Your task to perform on an android device: Go to calendar. Show me events next week Image 0: 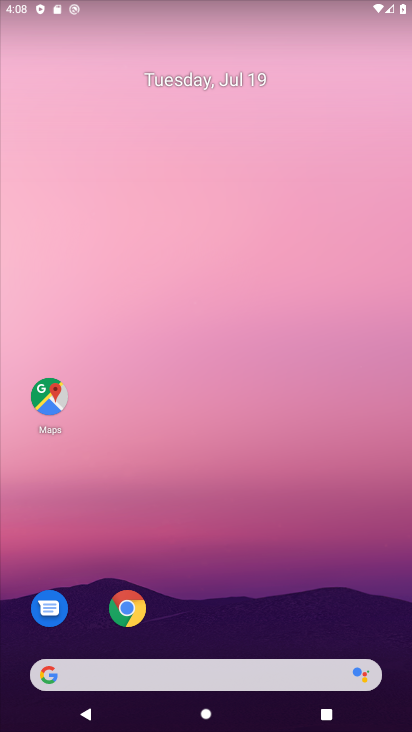
Step 0: click (219, 94)
Your task to perform on an android device: Go to calendar. Show me events next week Image 1: 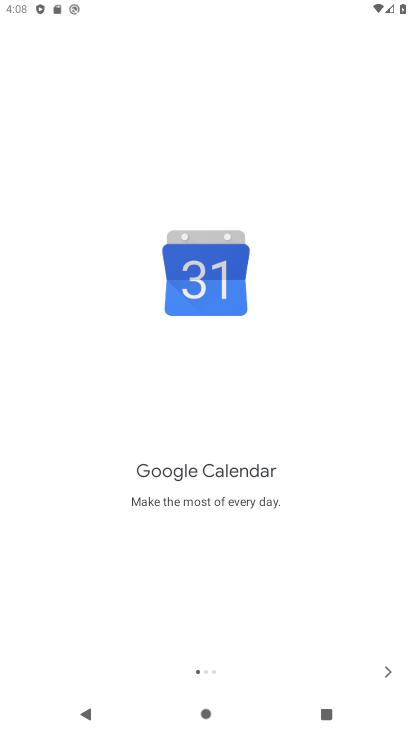
Step 1: click (386, 675)
Your task to perform on an android device: Go to calendar. Show me events next week Image 2: 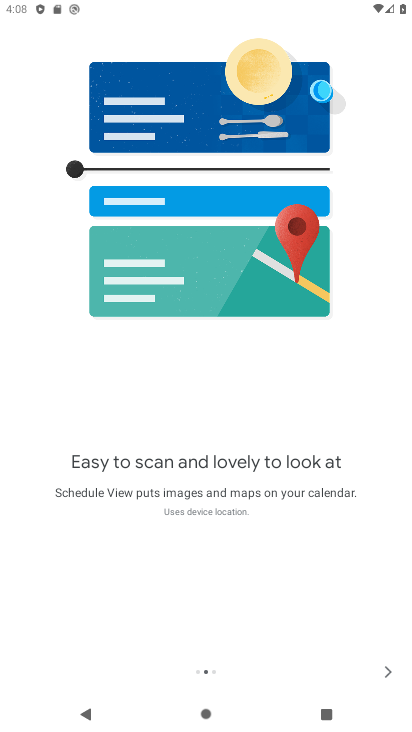
Step 2: click (386, 675)
Your task to perform on an android device: Go to calendar. Show me events next week Image 3: 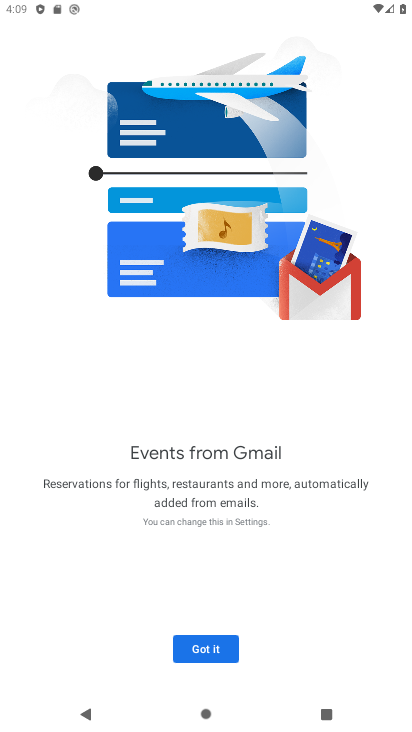
Step 3: click (220, 658)
Your task to perform on an android device: Go to calendar. Show me events next week Image 4: 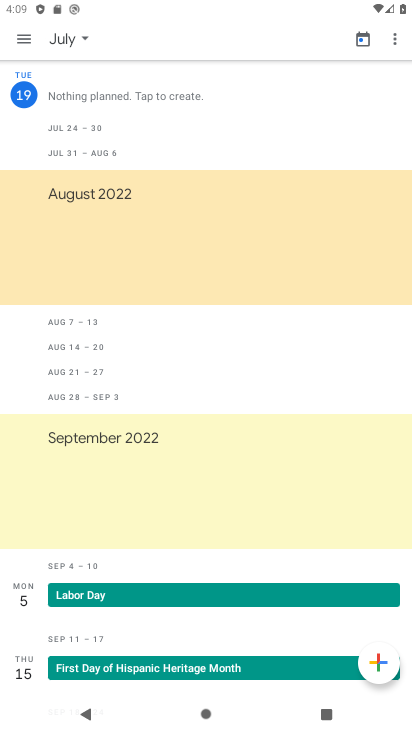
Step 4: click (66, 38)
Your task to perform on an android device: Go to calendar. Show me events next week Image 5: 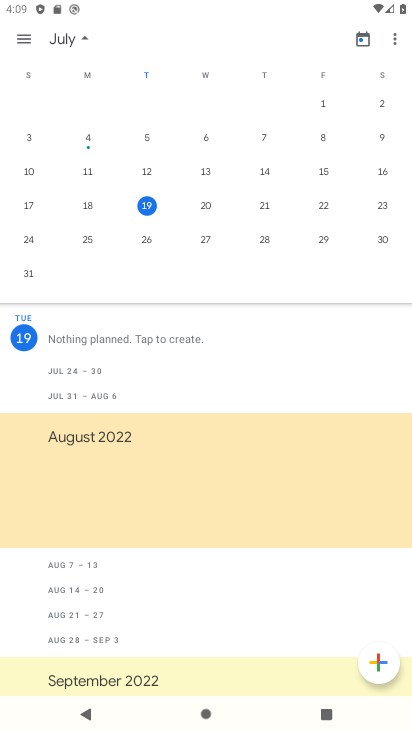
Step 5: drag from (383, 285) to (29, 267)
Your task to perform on an android device: Go to calendar. Show me events next week Image 6: 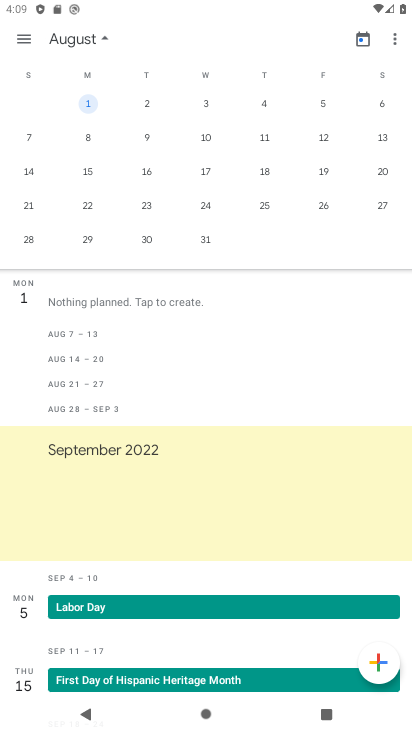
Step 6: drag from (20, 225) to (398, 275)
Your task to perform on an android device: Go to calendar. Show me events next week Image 7: 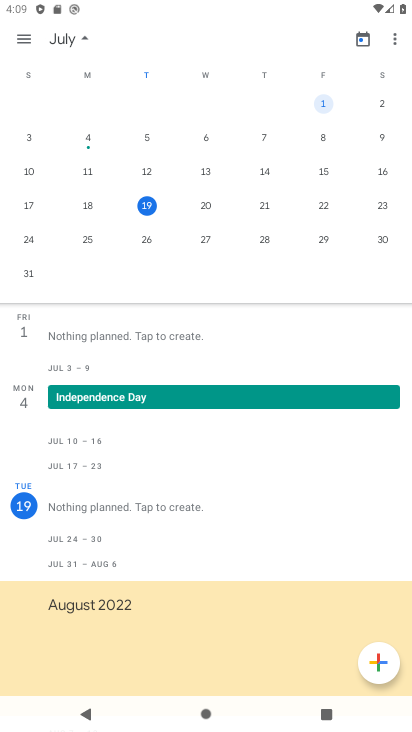
Step 7: drag from (26, 35) to (29, 0)
Your task to perform on an android device: Go to calendar. Show me events next week Image 8: 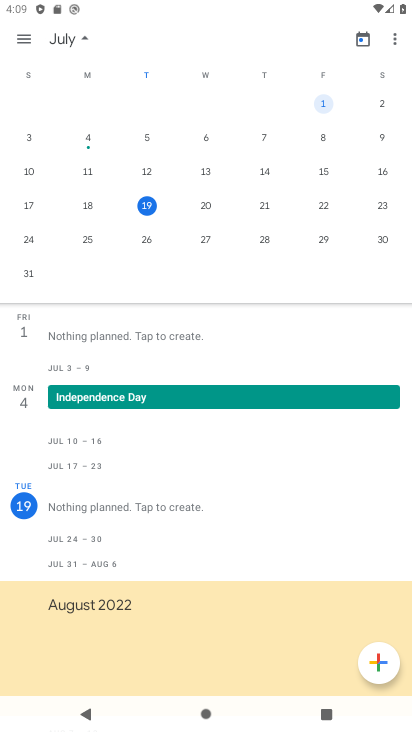
Step 8: click (11, 31)
Your task to perform on an android device: Go to calendar. Show me events next week Image 9: 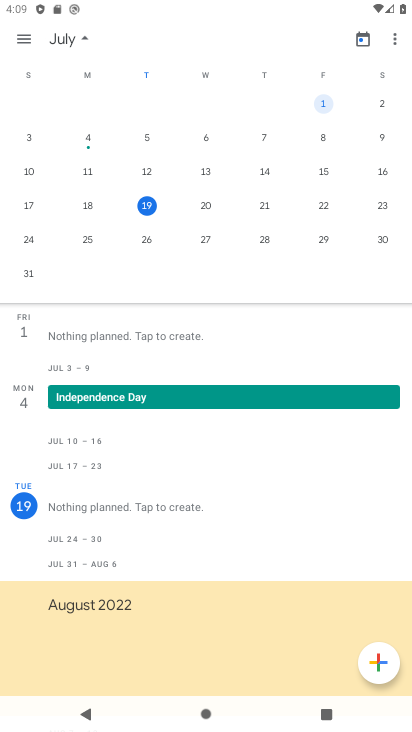
Step 9: click (19, 54)
Your task to perform on an android device: Go to calendar. Show me events next week Image 10: 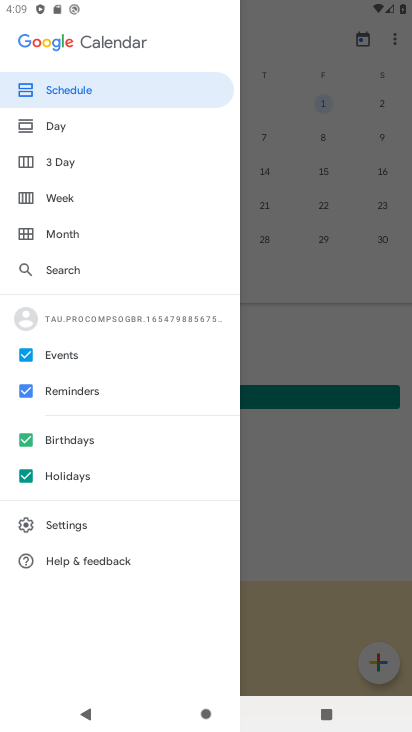
Step 10: click (30, 396)
Your task to perform on an android device: Go to calendar. Show me events next week Image 11: 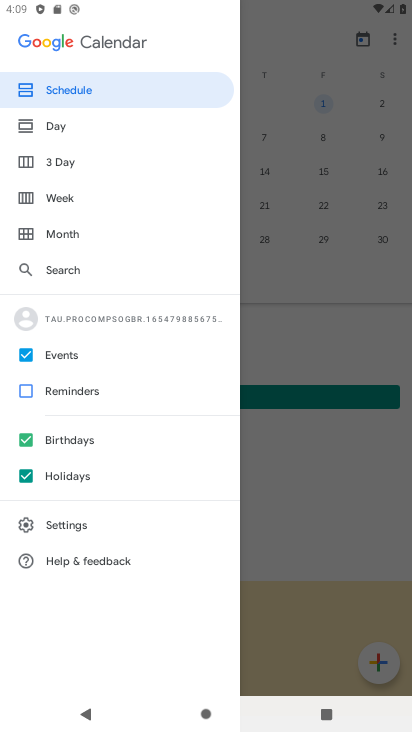
Step 11: click (21, 442)
Your task to perform on an android device: Go to calendar. Show me events next week Image 12: 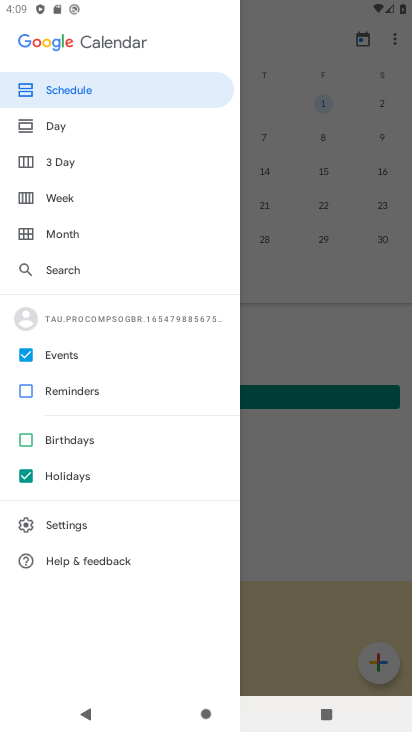
Step 12: click (21, 473)
Your task to perform on an android device: Go to calendar. Show me events next week Image 13: 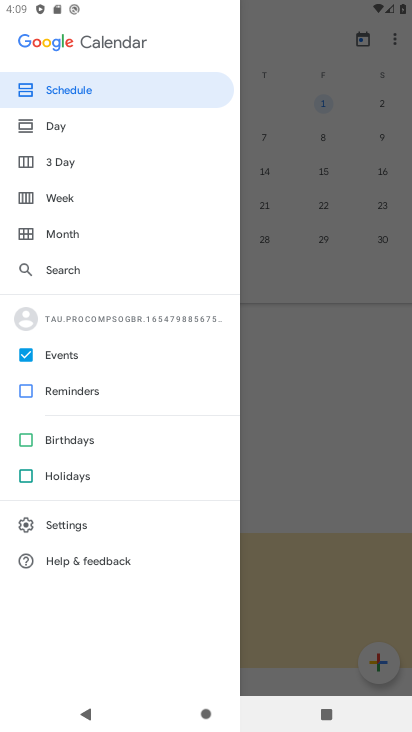
Step 13: click (90, 206)
Your task to perform on an android device: Go to calendar. Show me events next week Image 14: 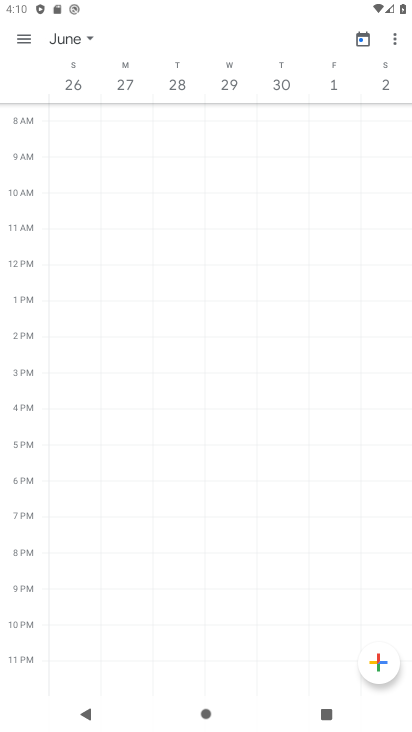
Step 14: click (75, 44)
Your task to perform on an android device: Go to calendar. Show me events next week Image 15: 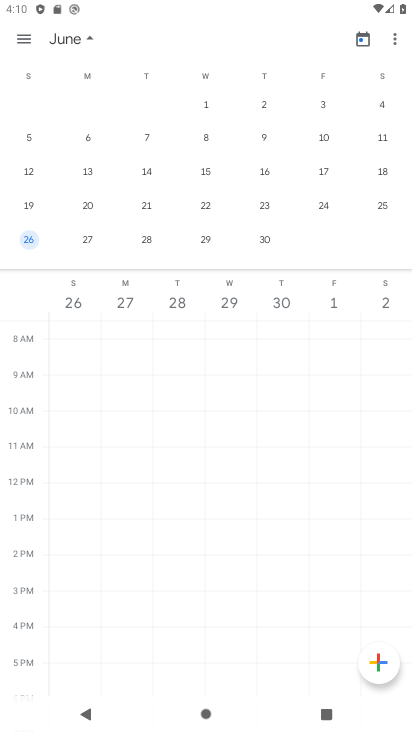
Step 15: drag from (369, 237) to (16, 206)
Your task to perform on an android device: Go to calendar. Show me events next week Image 16: 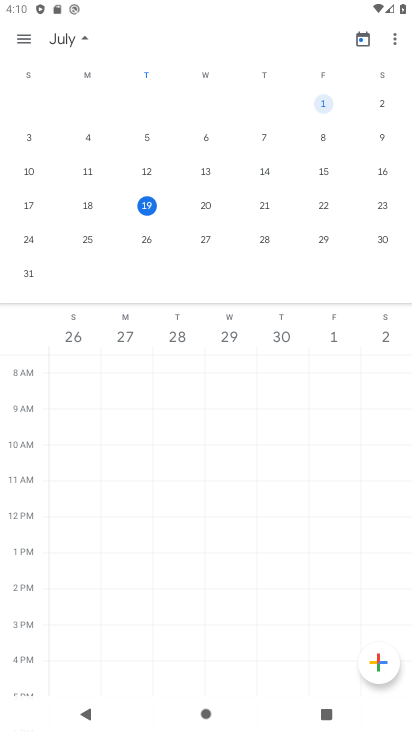
Step 16: click (132, 237)
Your task to perform on an android device: Go to calendar. Show me events next week Image 17: 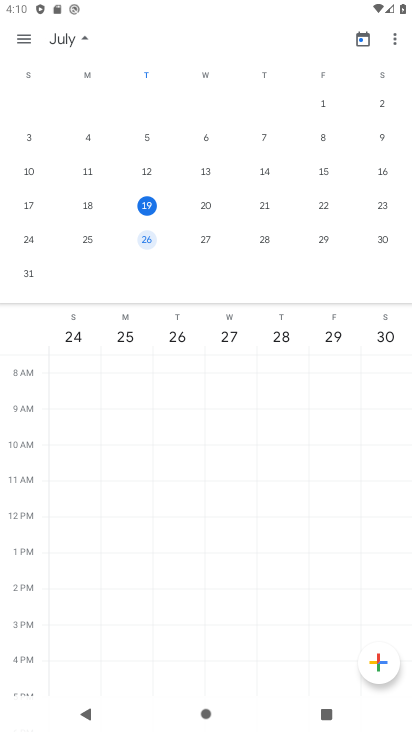
Step 17: task complete